Your task to perform on an android device: Add dell xps to the cart on newegg Image 0: 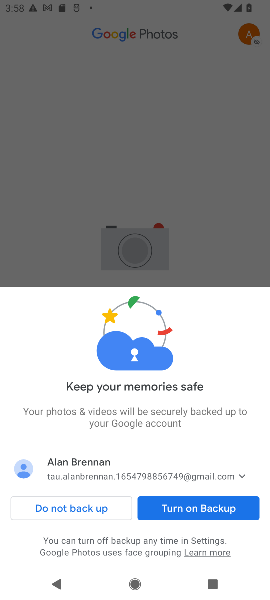
Step 0: press home button
Your task to perform on an android device: Add dell xps to the cart on newegg Image 1: 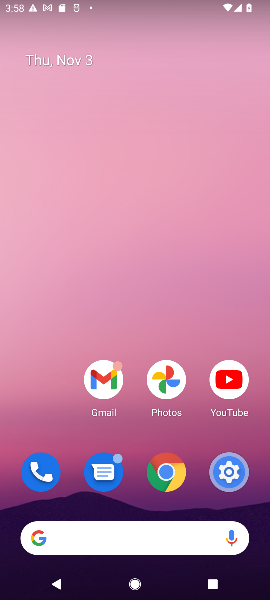
Step 1: click (151, 534)
Your task to perform on an android device: Add dell xps to the cart on newegg Image 2: 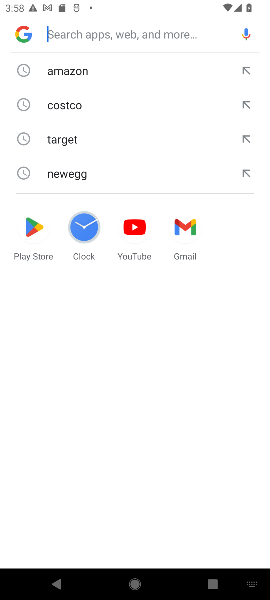
Step 2: type "newegg"
Your task to perform on an android device: Add dell xps to the cart on newegg Image 3: 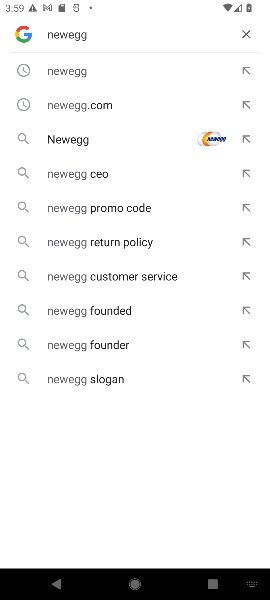
Step 3: click (85, 79)
Your task to perform on an android device: Add dell xps to the cart on newegg Image 4: 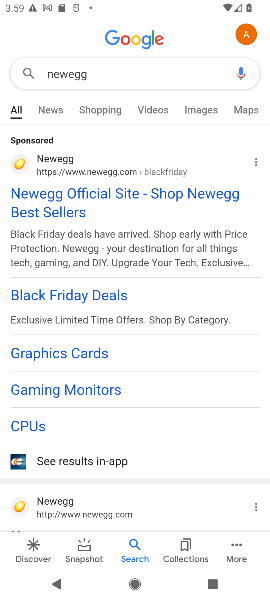
Step 4: click (30, 198)
Your task to perform on an android device: Add dell xps to the cart on newegg Image 5: 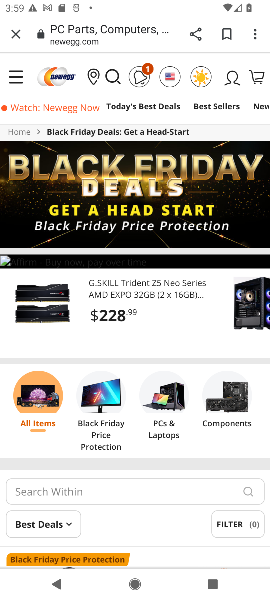
Step 5: click (108, 80)
Your task to perform on an android device: Add dell xps to the cart on newegg Image 6: 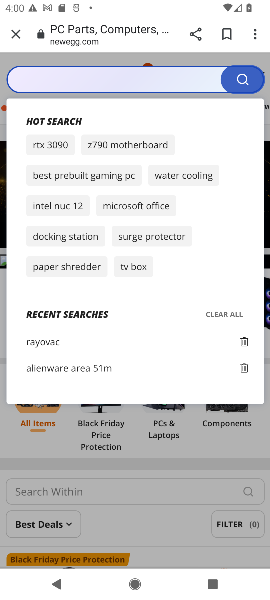
Step 6: click (93, 80)
Your task to perform on an android device: Add dell xps to the cart on newegg Image 7: 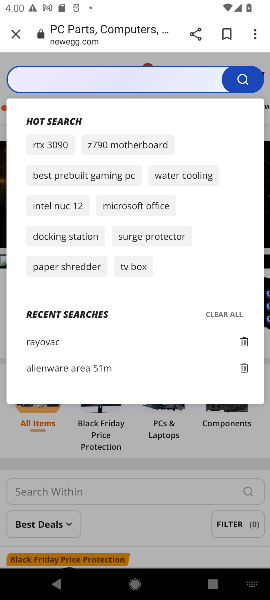
Step 7: type "dell xps"
Your task to perform on an android device: Add dell xps to the cart on newegg Image 8: 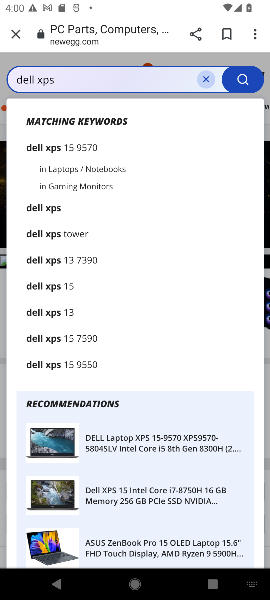
Step 8: click (70, 149)
Your task to perform on an android device: Add dell xps to the cart on newegg Image 9: 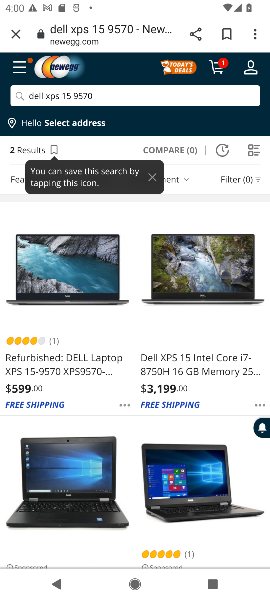
Step 9: click (65, 364)
Your task to perform on an android device: Add dell xps to the cart on newegg Image 10: 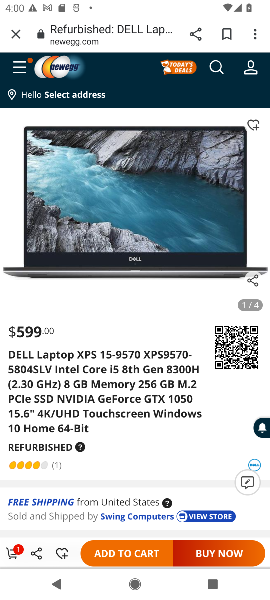
Step 10: task complete